Your task to perform on an android device: Go to CNN.com Image 0: 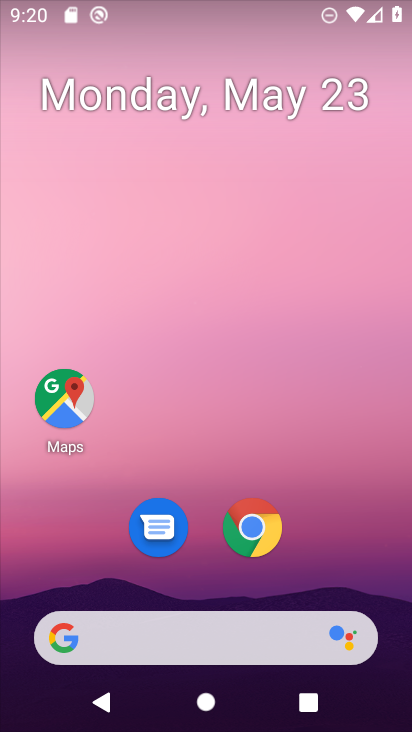
Step 0: click (163, 632)
Your task to perform on an android device: Go to CNN.com Image 1: 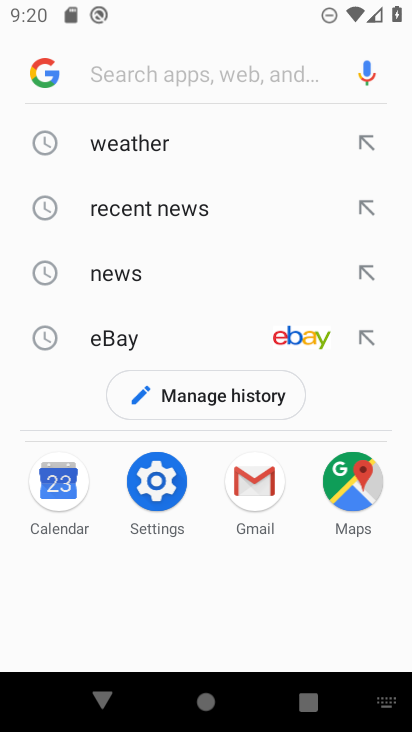
Step 1: type "cnn.com"
Your task to perform on an android device: Go to CNN.com Image 2: 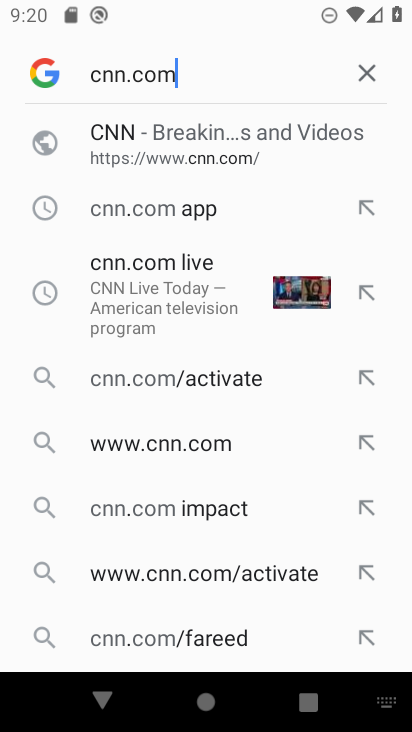
Step 2: click (100, 140)
Your task to perform on an android device: Go to CNN.com Image 3: 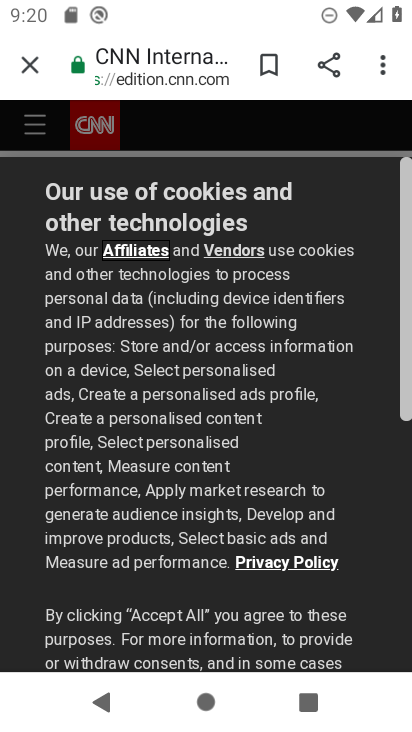
Step 3: task complete